Your task to perform on an android device: add a label to a message in the gmail app Image 0: 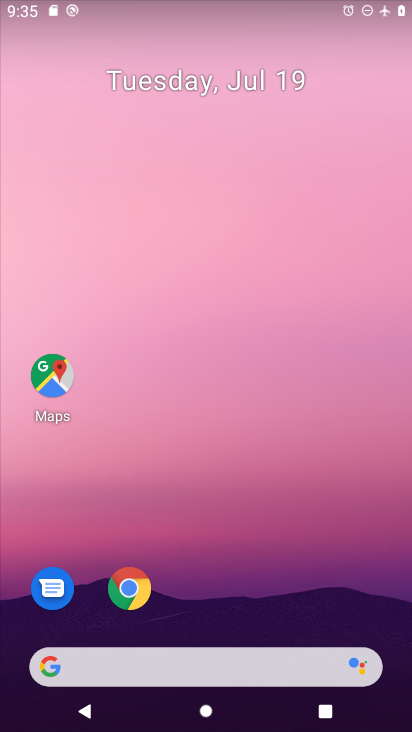
Step 0: drag from (356, 588) to (365, 89)
Your task to perform on an android device: add a label to a message in the gmail app Image 1: 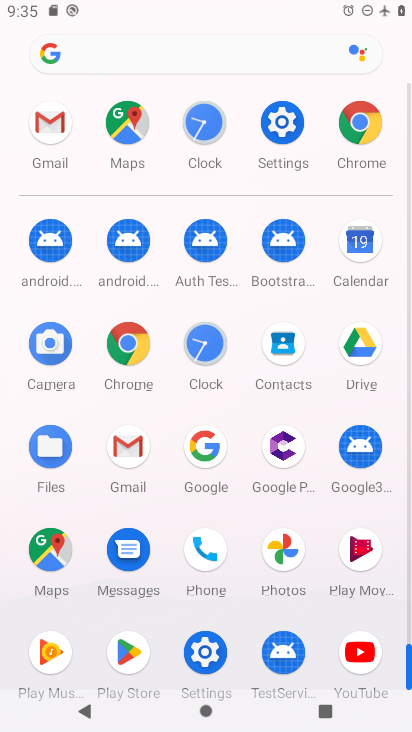
Step 1: click (130, 446)
Your task to perform on an android device: add a label to a message in the gmail app Image 2: 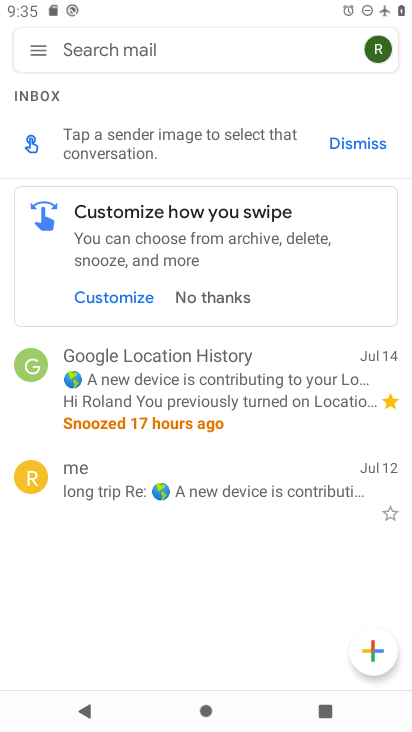
Step 2: click (253, 404)
Your task to perform on an android device: add a label to a message in the gmail app Image 3: 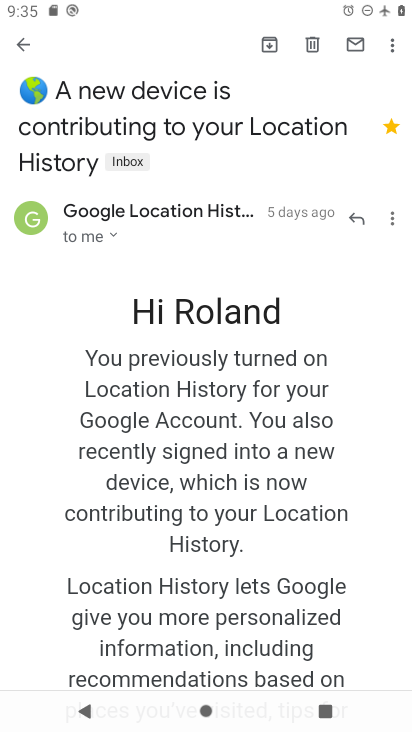
Step 3: click (135, 157)
Your task to perform on an android device: add a label to a message in the gmail app Image 4: 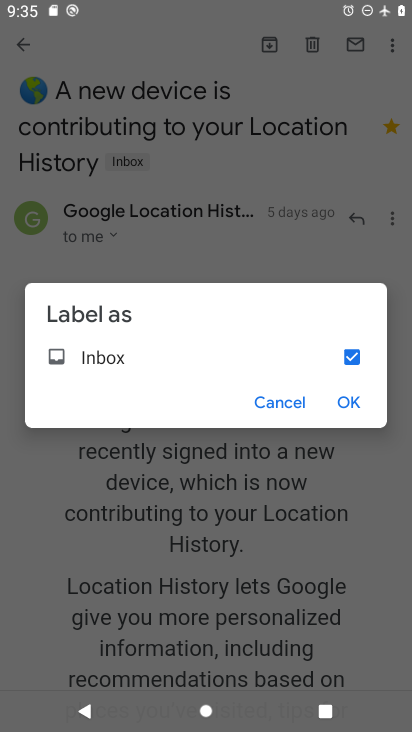
Step 4: click (347, 403)
Your task to perform on an android device: add a label to a message in the gmail app Image 5: 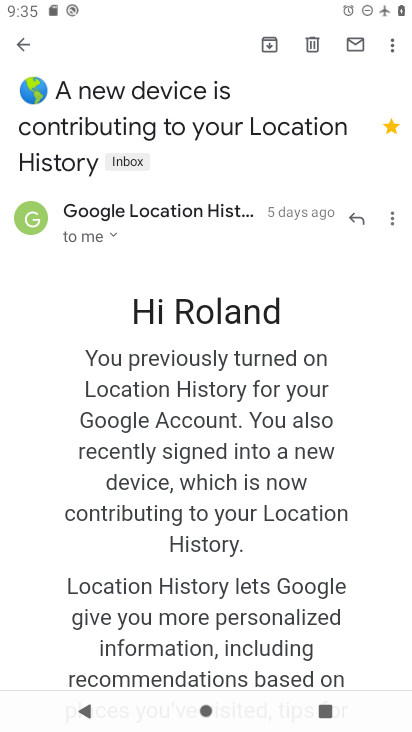
Step 5: task complete